Your task to perform on an android device: Open display settings Image 0: 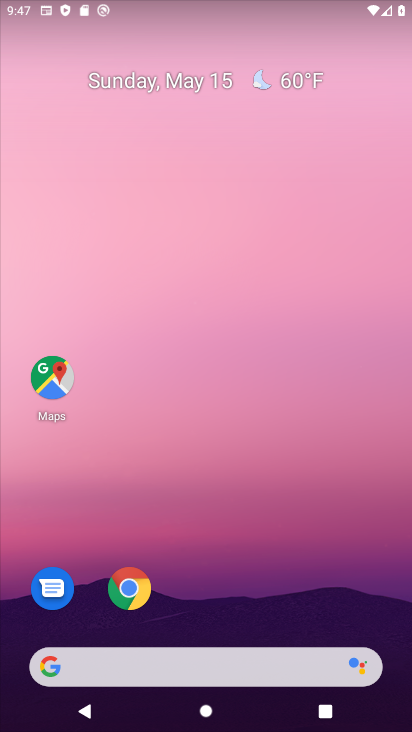
Step 0: drag from (231, 629) to (244, 211)
Your task to perform on an android device: Open display settings Image 1: 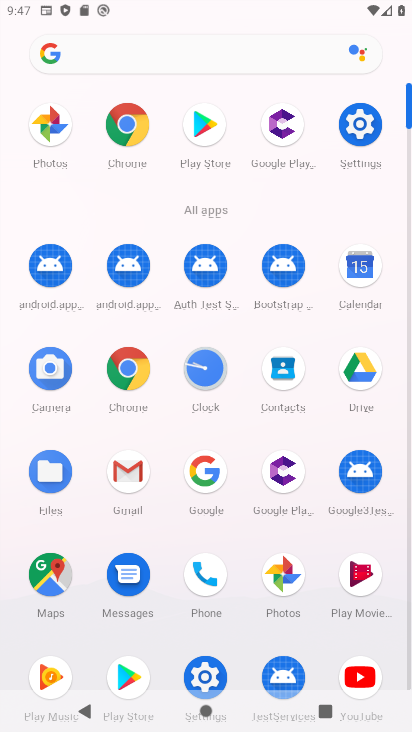
Step 1: click (363, 142)
Your task to perform on an android device: Open display settings Image 2: 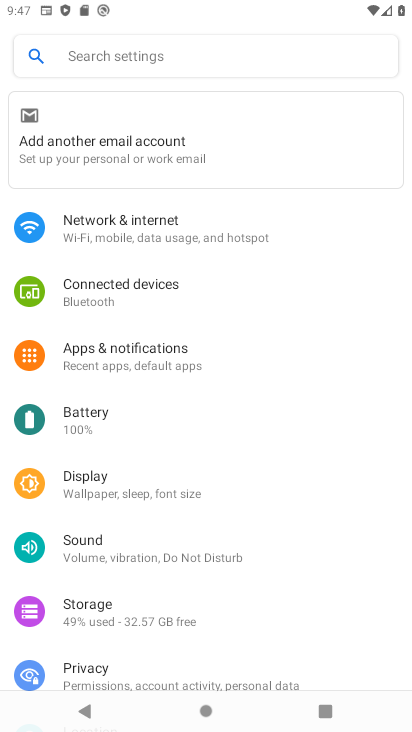
Step 2: click (212, 475)
Your task to perform on an android device: Open display settings Image 3: 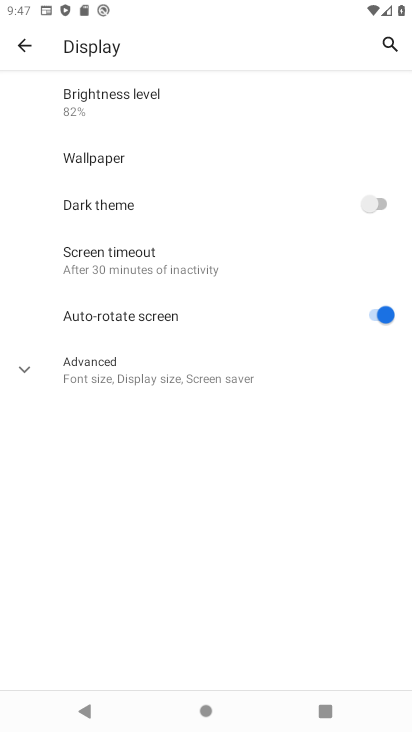
Step 3: task complete